Your task to perform on an android device: Open my contact list Image 0: 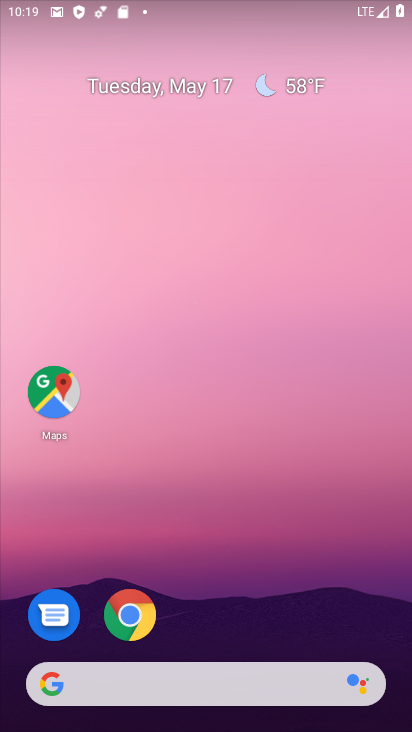
Step 0: drag from (228, 644) to (230, 290)
Your task to perform on an android device: Open my contact list Image 1: 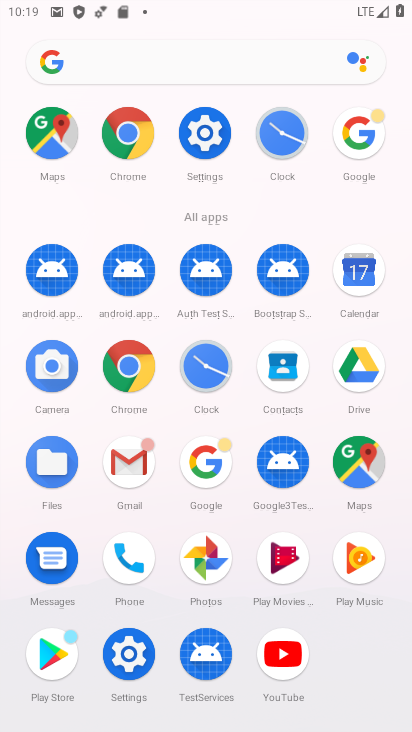
Step 1: click (294, 370)
Your task to perform on an android device: Open my contact list Image 2: 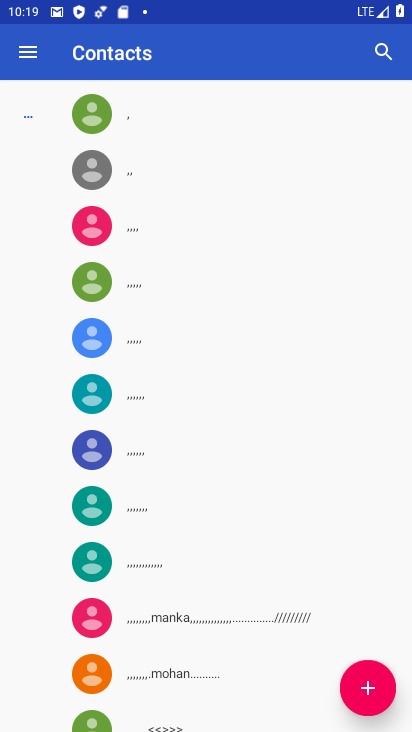
Step 2: task complete